Your task to perform on an android device: Go to Maps Image 0: 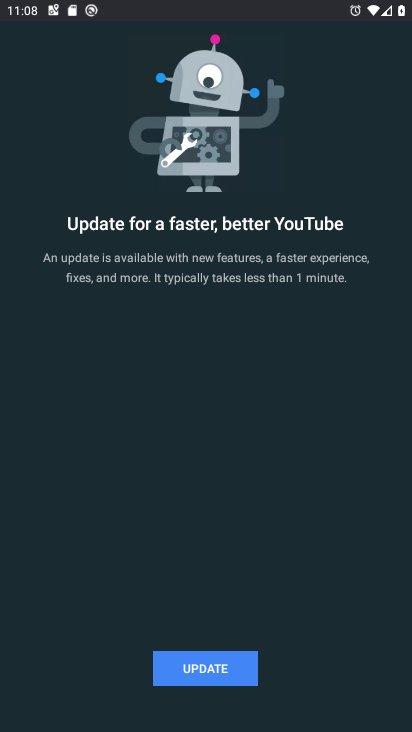
Step 0: press home button
Your task to perform on an android device: Go to Maps Image 1: 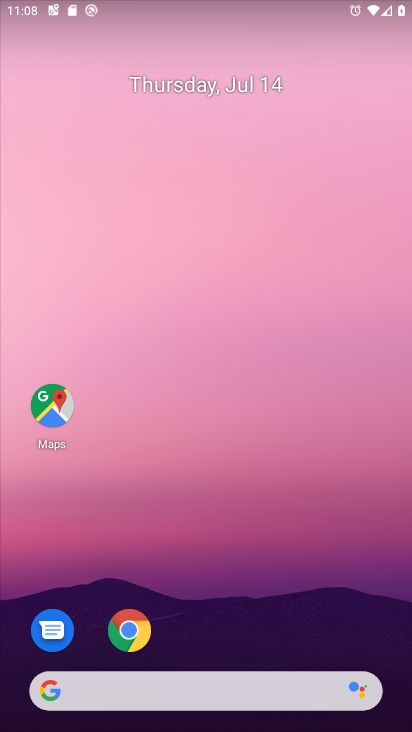
Step 1: drag from (226, 630) to (344, 67)
Your task to perform on an android device: Go to Maps Image 2: 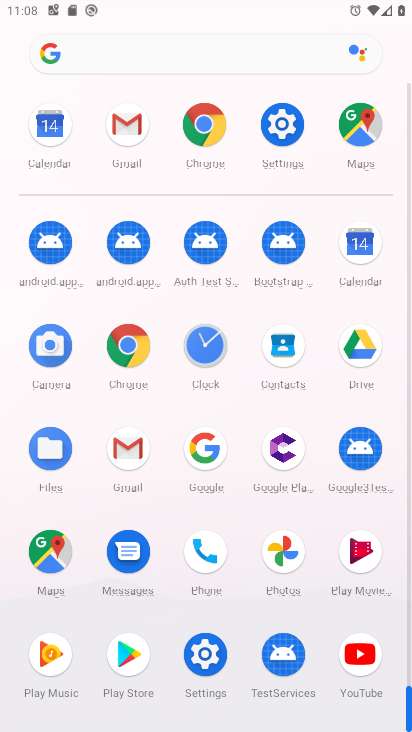
Step 2: click (49, 541)
Your task to perform on an android device: Go to Maps Image 3: 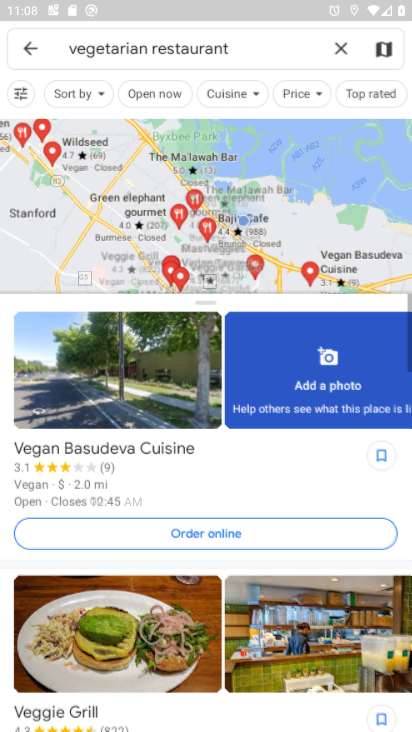
Step 3: task complete